Your task to perform on an android device: turn off javascript in the chrome app Image 0: 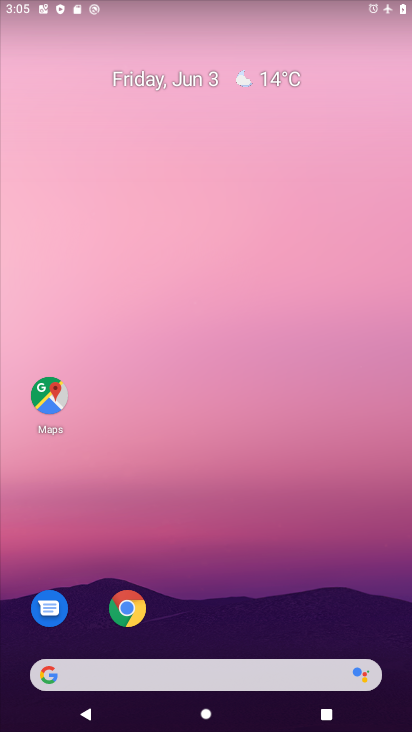
Step 0: click (124, 604)
Your task to perform on an android device: turn off javascript in the chrome app Image 1: 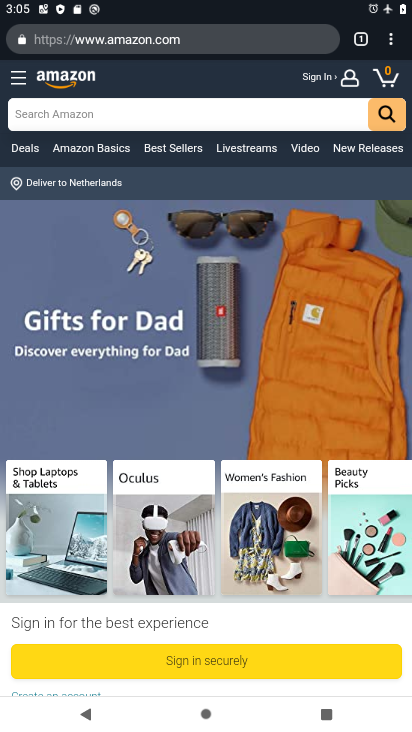
Step 1: drag from (390, 42) to (283, 466)
Your task to perform on an android device: turn off javascript in the chrome app Image 2: 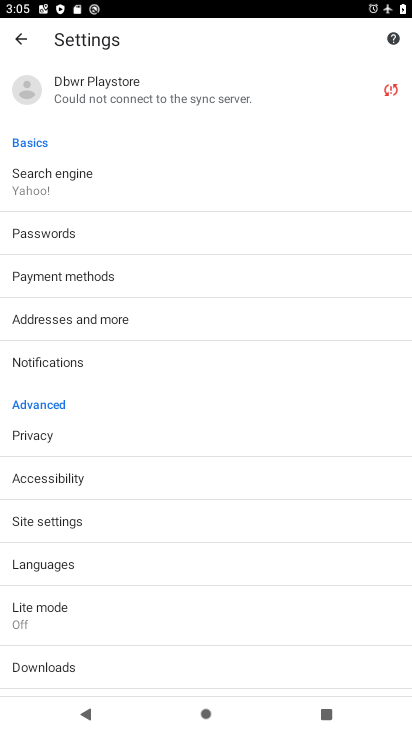
Step 2: click (80, 527)
Your task to perform on an android device: turn off javascript in the chrome app Image 3: 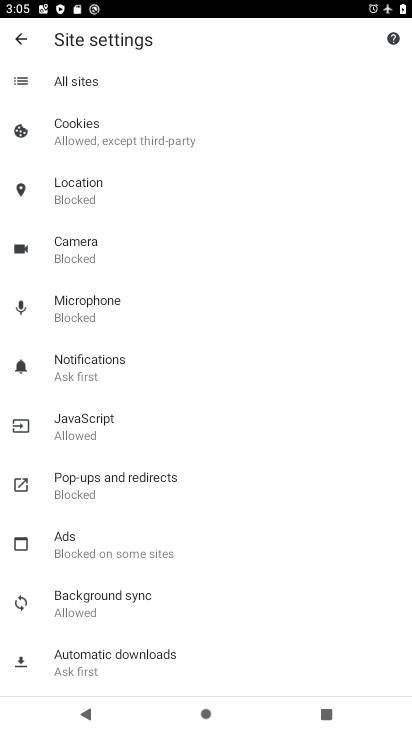
Step 3: click (142, 423)
Your task to perform on an android device: turn off javascript in the chrome app Image 4: 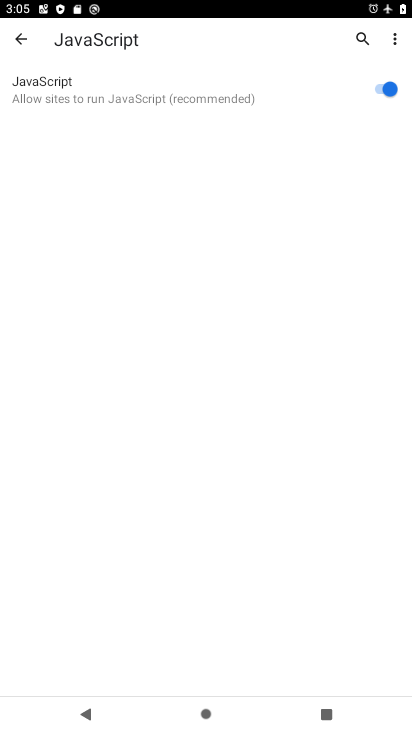
Step 4: click (386, 95)
Your task to perform on an android device: turn off javascript in the chrome app Image 5: 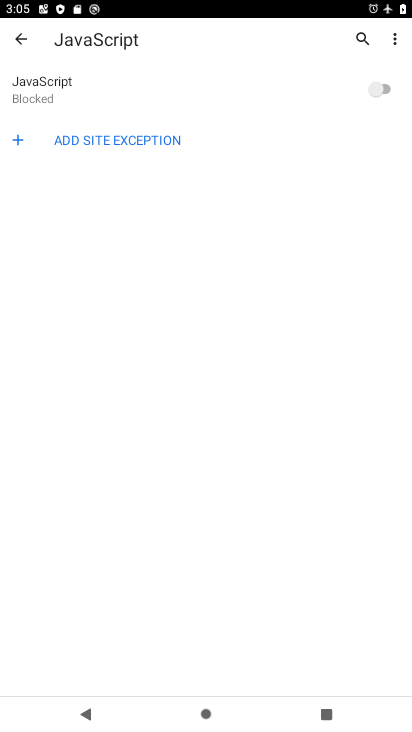
Step 5: task complete